Your task to perform on an android device: Open display settings Image 0: 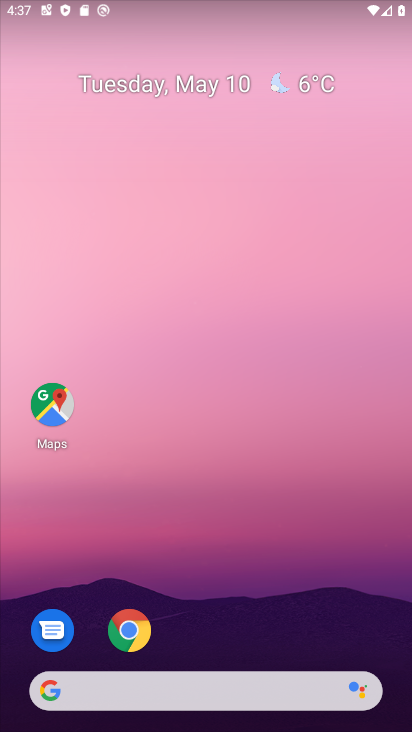
Step 0: drag from (289, 598) to (187, 201)
Your task to perform on an android device: Open display settings Image 1: 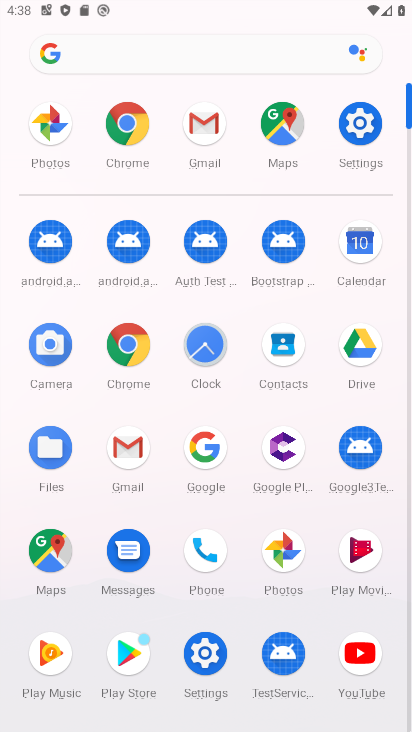
Step 1: click (355, 119)
Your task to perform on an android device: Open display settings Image 2: 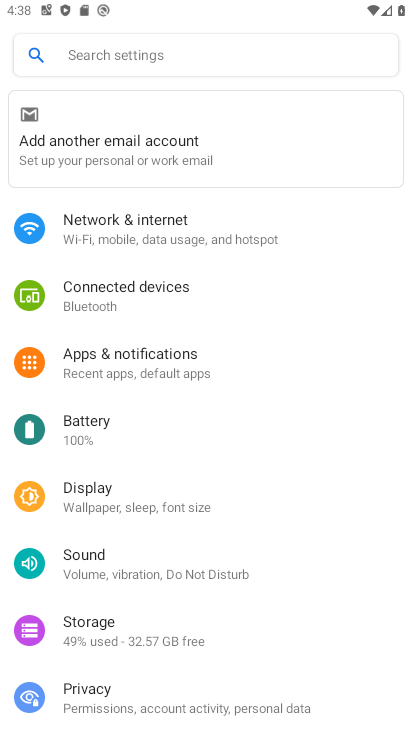
Step 2: click (106, 498)
Your task to perform on an android device: Open display settings Image 3: 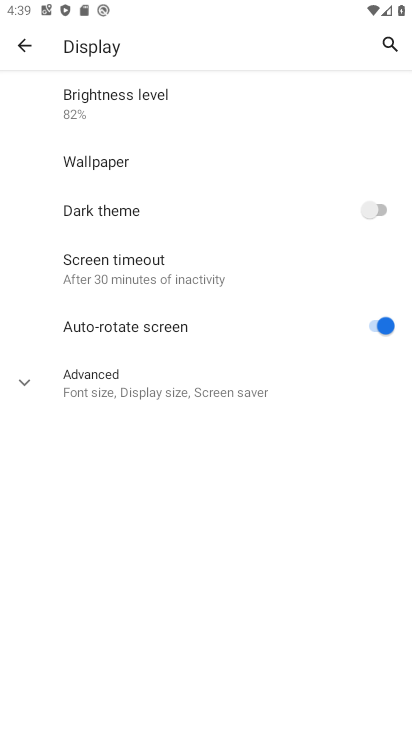
Step 3: task complete